Your task to perform on an android device: delete browsing data in the chrome app Image 0: 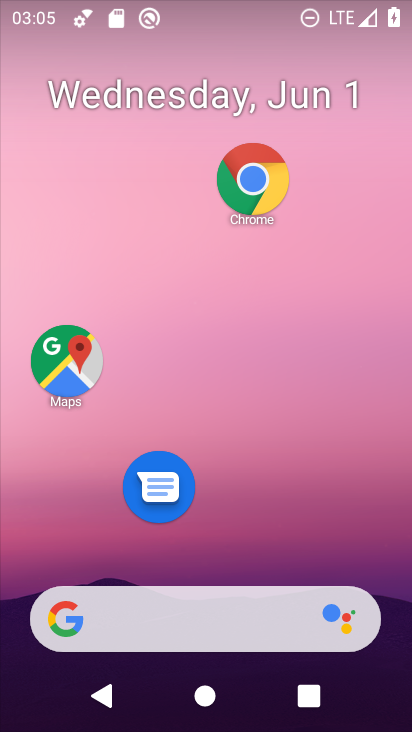
Step 0: click (256, 171)
Your task to perform on an android device: delete browsing data in the chrome app Image 1: 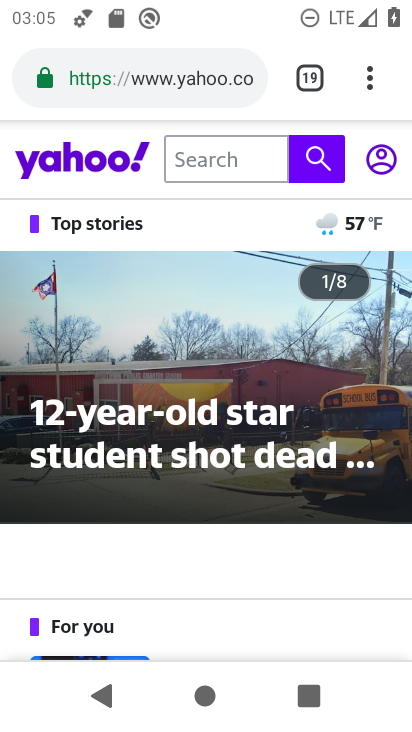
Step 1: click (371, 79)
Your task to perform on an android device: delete browsing data in the chrome app Image 2: 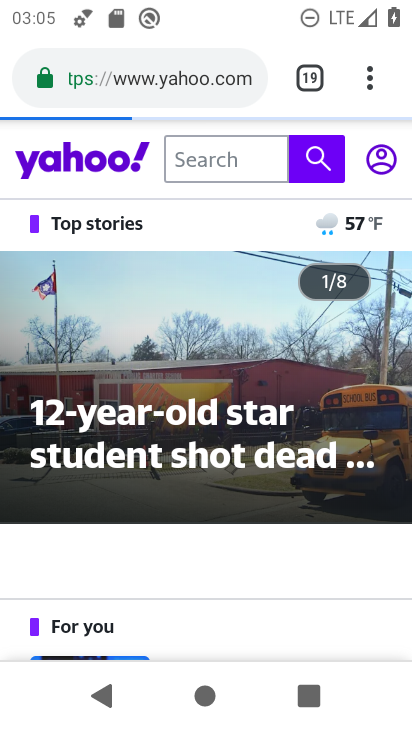
Step 2: click (352, 49)
Your task to perform on an android device: delete browsing data in the chrome app Image 3: 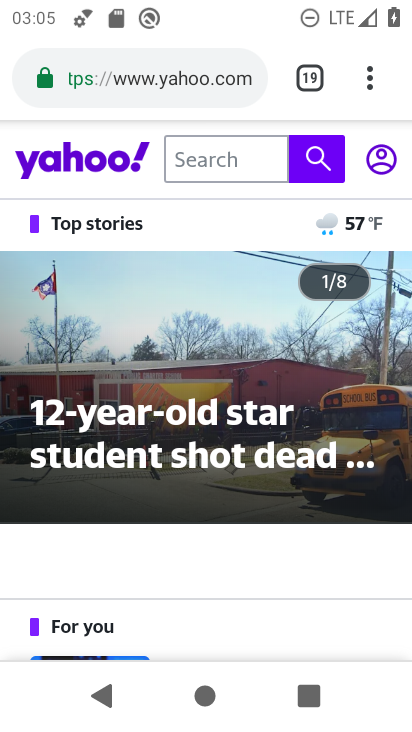
Step 3: click (371, 67)
Your task to perform on an android device: delete browsing data in the chrome app Image 4: 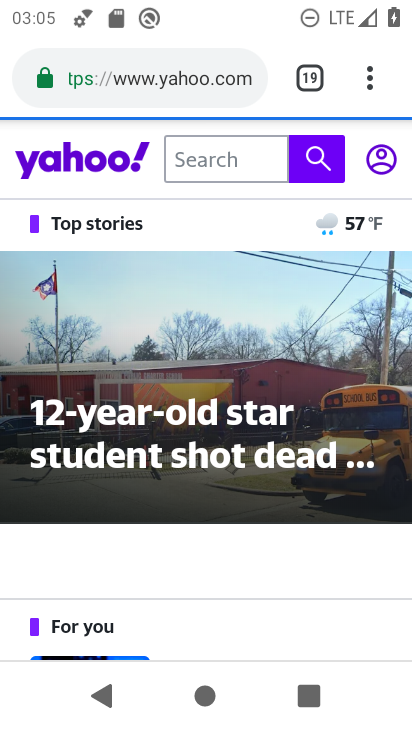
Step 4: click (369, 68)
Your task to perform on an android device: delete browsing data in the chrome app Image 5: 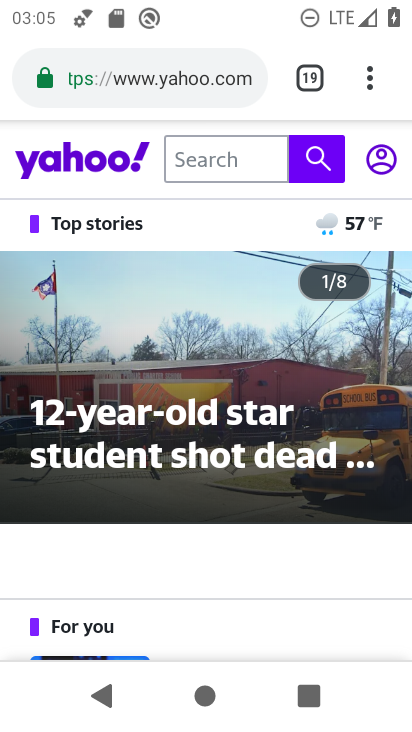
Step 5: click (361, 73)
Your task to perform on an android device: delete browsing data in the chrome app Image 6: 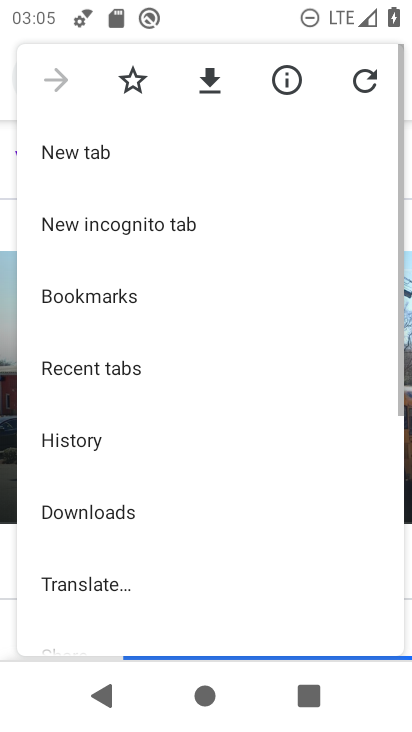
Step 6: drag from (161, 562) to (191, 238)
Your task to perform on an android device: delete browsing data in the chrome app Image 7: 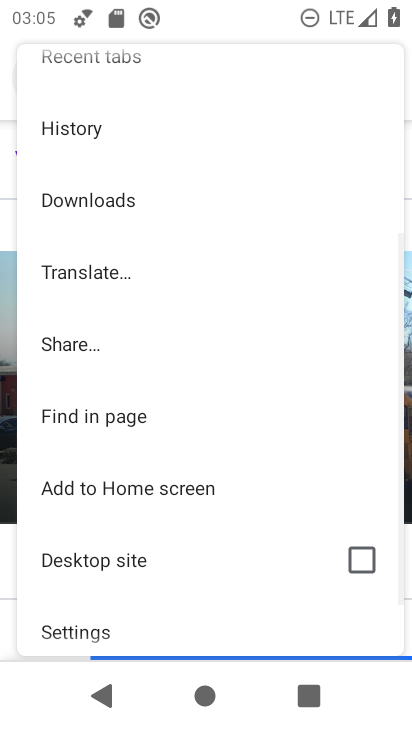
Step 7: drag from (140, 574) to (148, 374)
Your task to perform on an android device: delete browsing data in the chrome app Image 8: 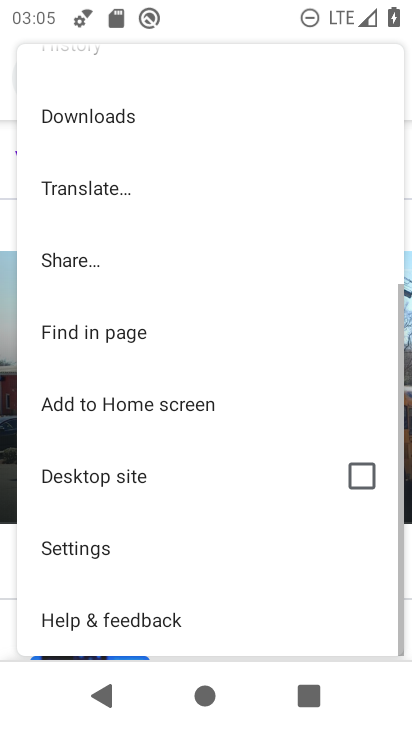
Step 8: click (117, 531)
Your task to perform on an android device: delete browsing data in the chrome app Image 9: 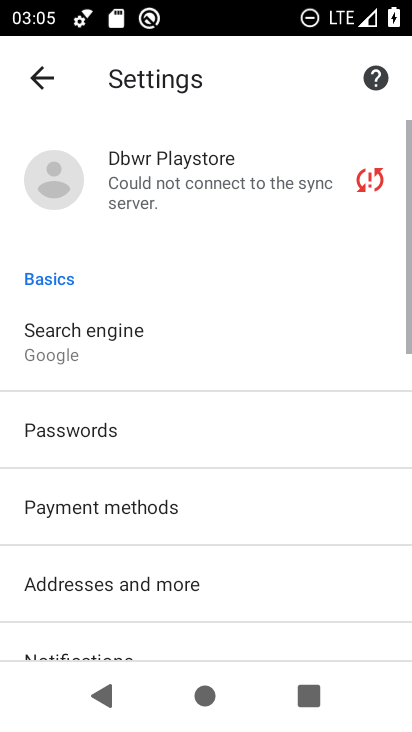
Step 9: drag from (175, 563) to (242, 284)
Your task to perform on an android device: delete browsing data in the chrome app Image 10: 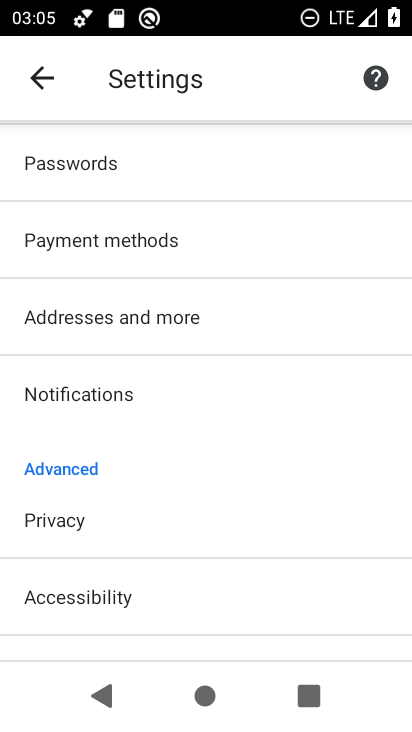
Step 10: click (112, 532)
Your task to perform on an android device: delete browsing data in the chrome app Image 11: 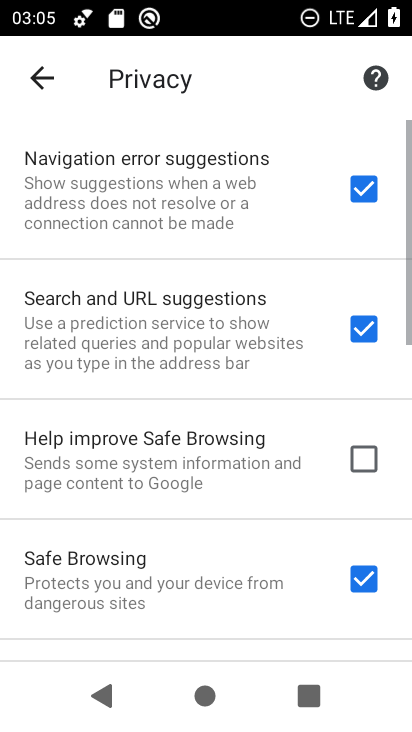
Step 11: drag from (218, 586) to (254, 270)
Your task to perform on an android device: delete browsing data in the chrome app Image 12: 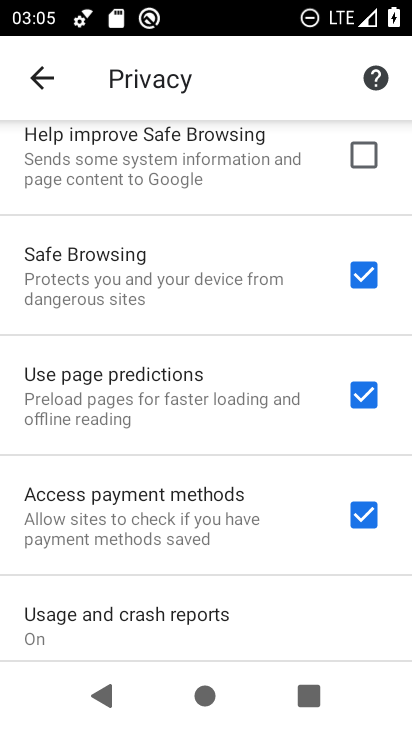
Step 12: drag from (189, 597) to (244, 242)
Your task to perform on an android device: delete browsing data in the chrome app Image 13: 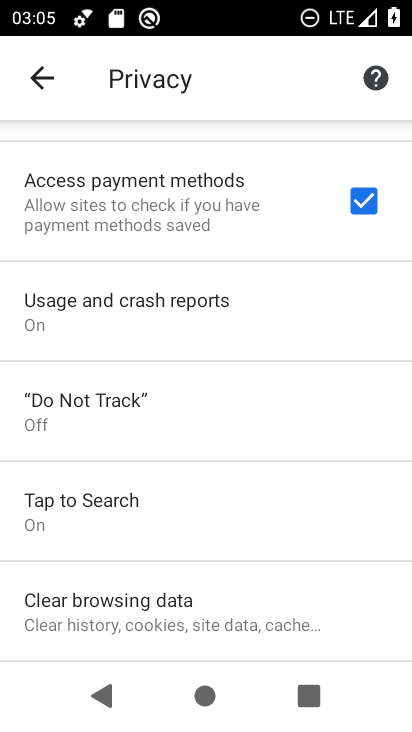
Step 13: click (170, 610)
Your task to perform on an android device: delete browsing data in the chrome app Image 14: 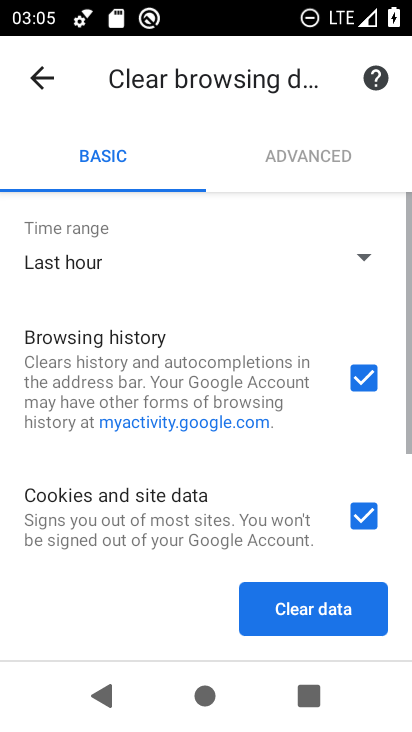
Step 14: click (315, 598)
Your task to perform on an android device: delete browsing data in the chrome app Image 15: 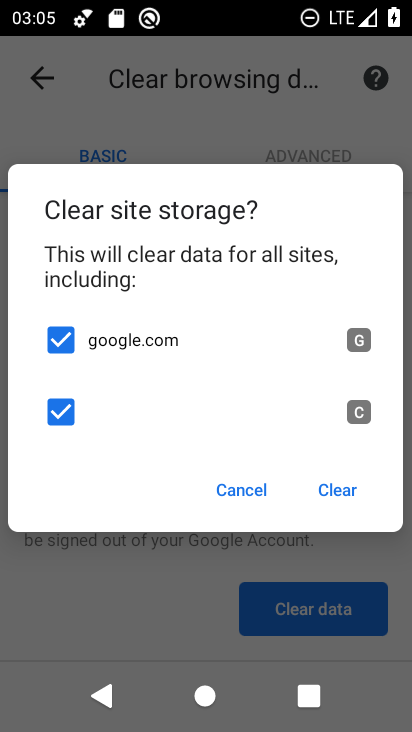
Step 15: click (320, 481)
Your task to perform on an android device: delete browsing data in the chrome app Image 16: 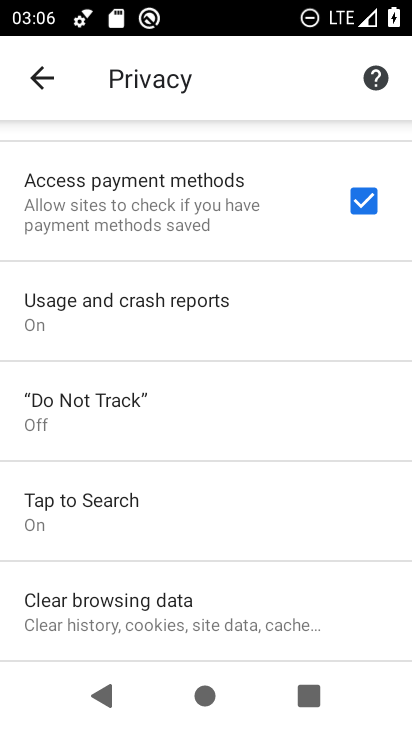
Step 16: task complete